Your task to perform on an android device: What is the news today? Image 0: 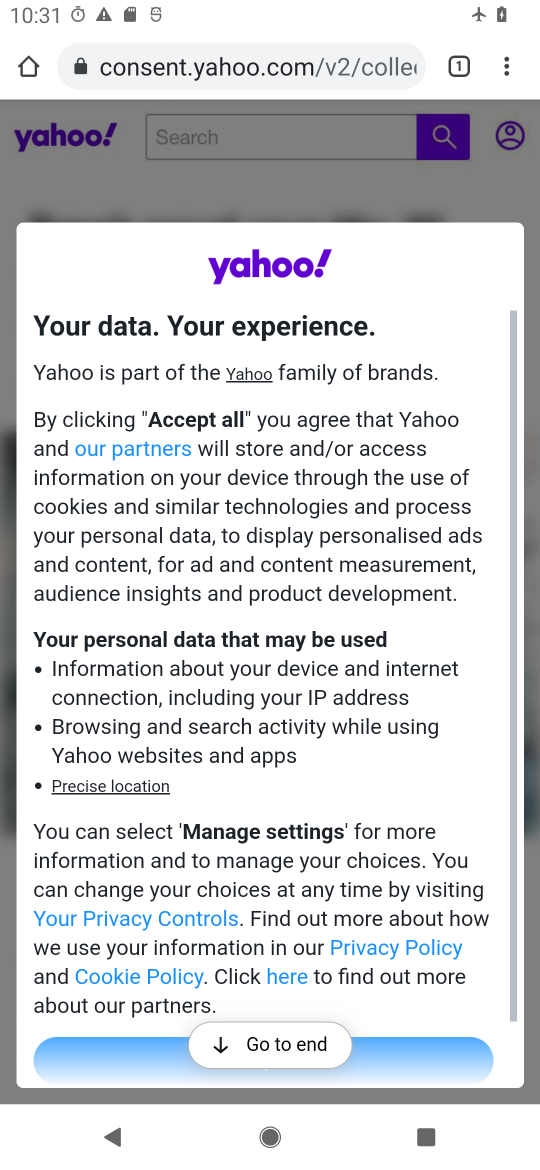
Step 0: press home button
Your task to perform on an android device: What is the news today? Image 1: 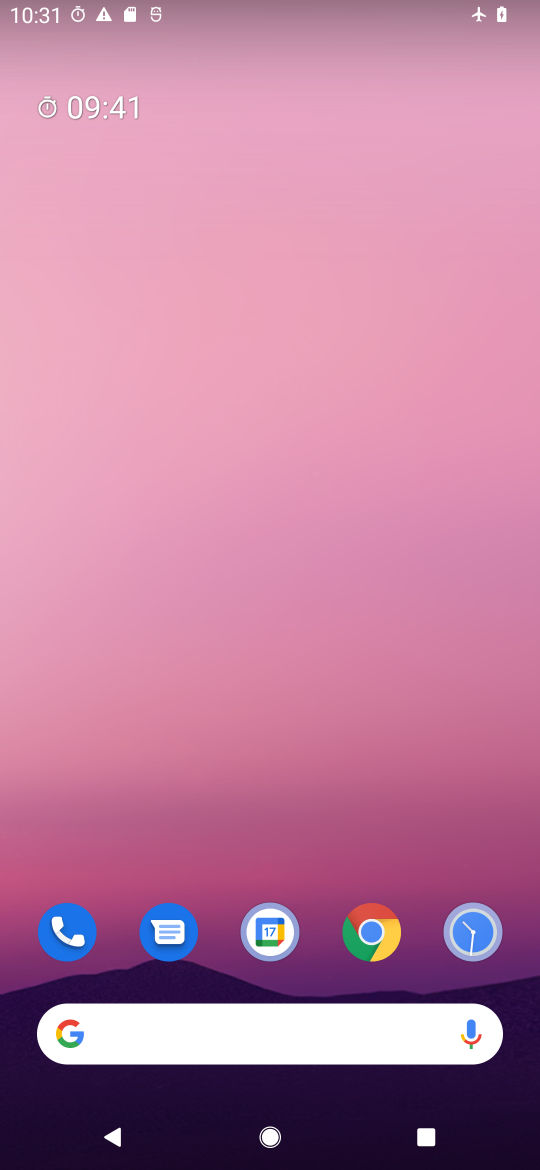
Step 1: drag from (309, 384) to (262, 100)
Your task to perform on an android device: What is the news today? Image 2: 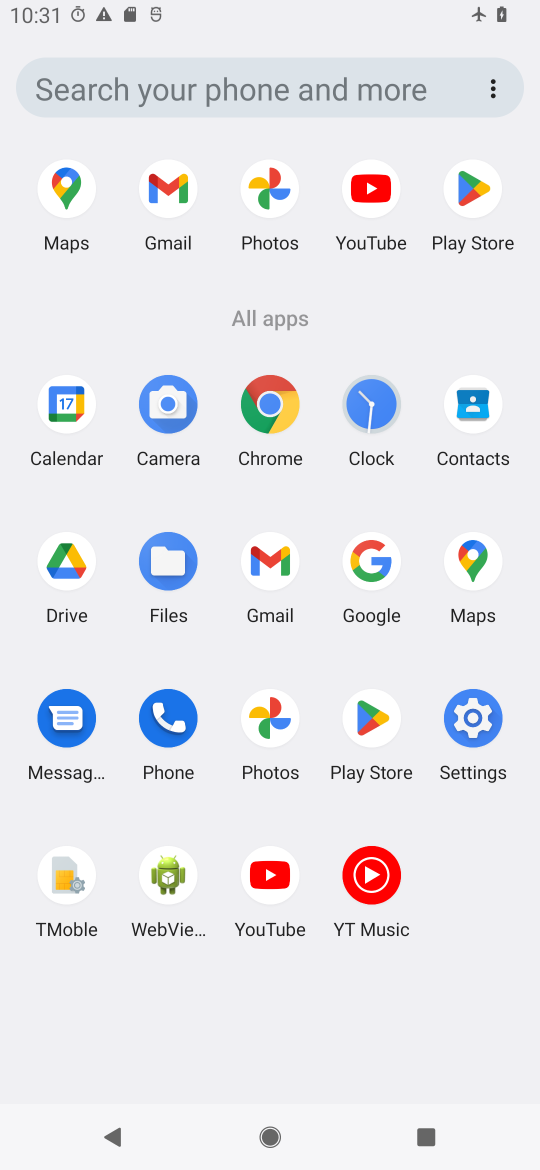
Step 2: click (352, 581)
Your task to perform on an android device: What is the news today? Image 3: 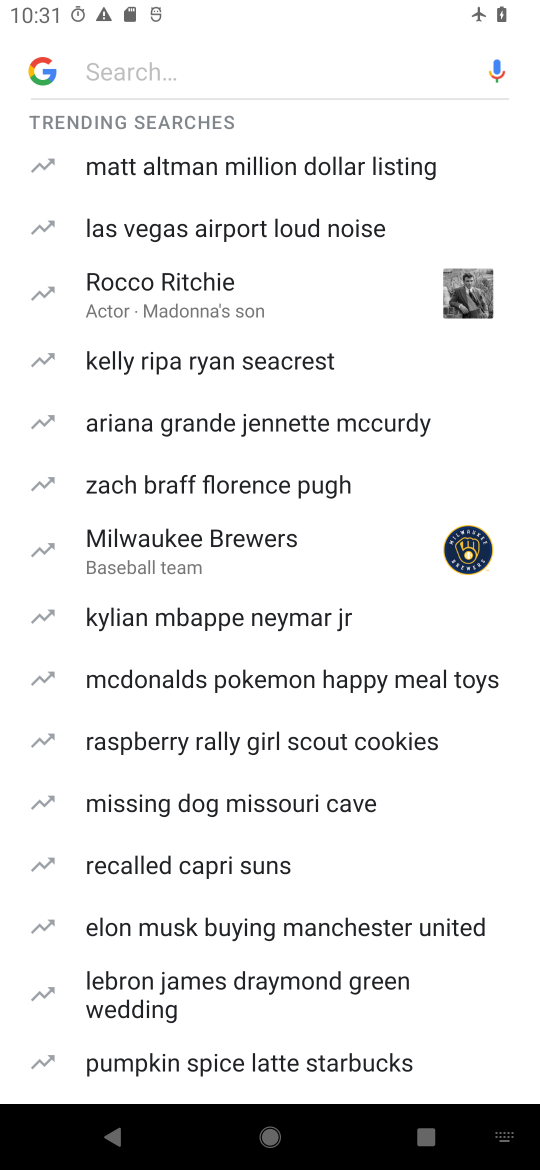
Step 3: type "news toda"
Your task to perform on an android device: What is the news today? Image 4: 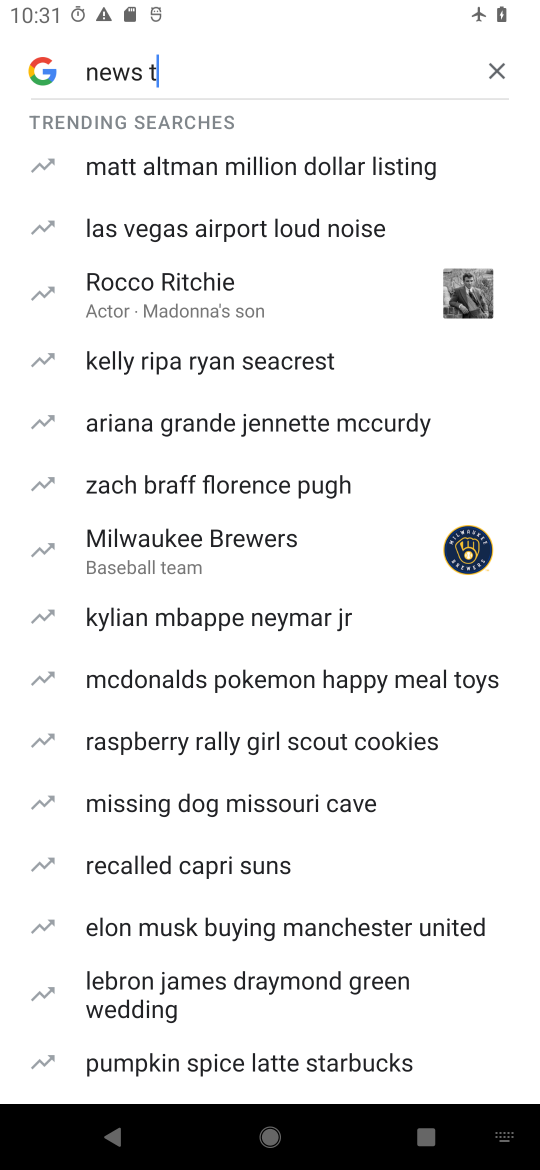
Step 4: type ""
Your task to perform on an android device: What is the news today? Image 5: 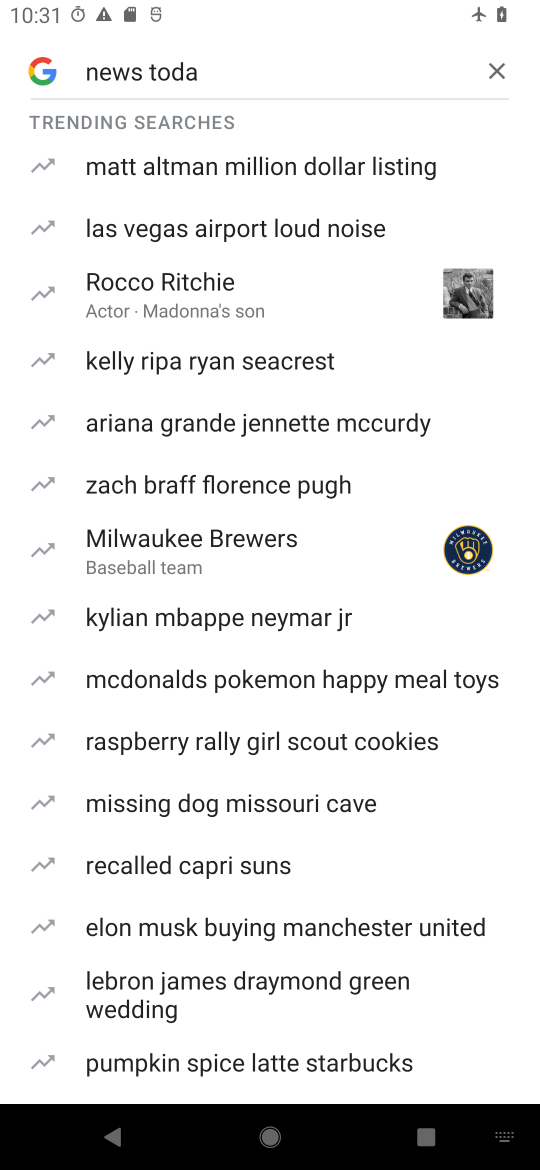
Step 5: click (503, 71)
Your task to perform on an android device: What is the news today? Image 6: 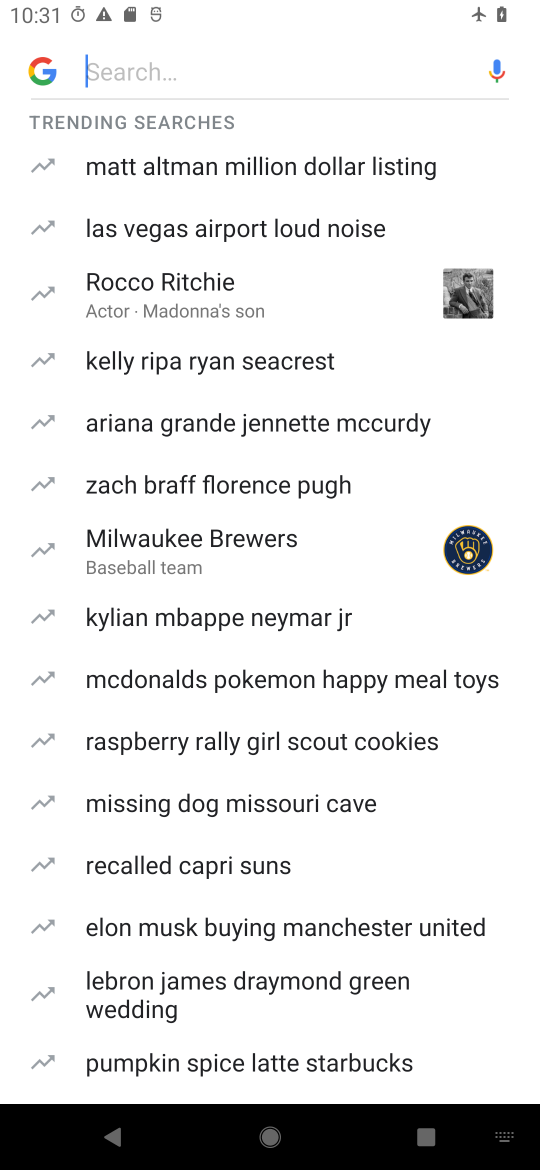
Step 6: type "news today"
Your task to perform on an android device: What is the news today? Image 7: 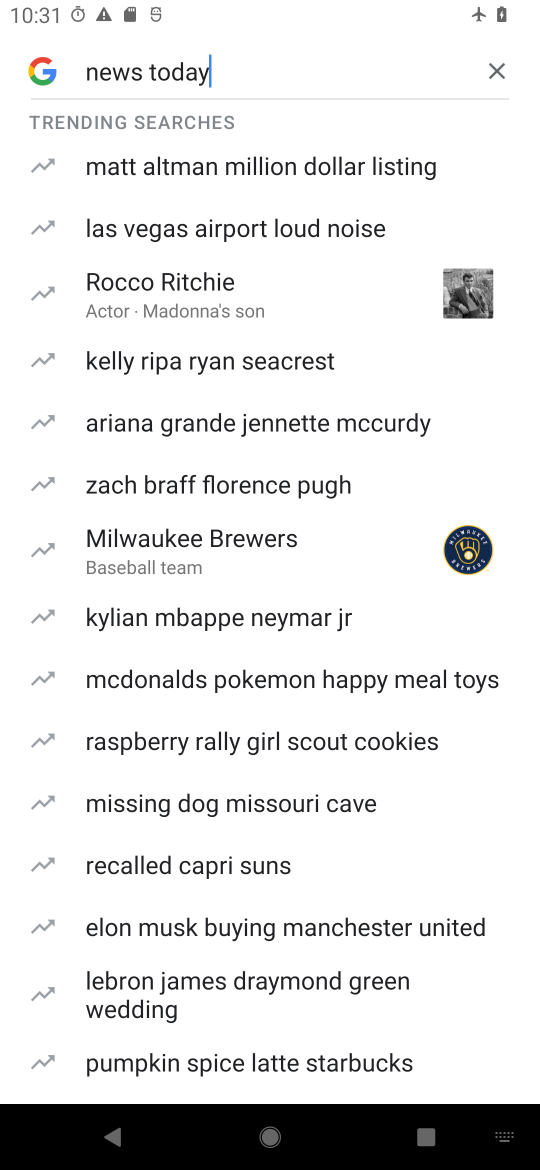
Step 7: type ""
Your task to perform on an android device: What is the news today? Image 8: 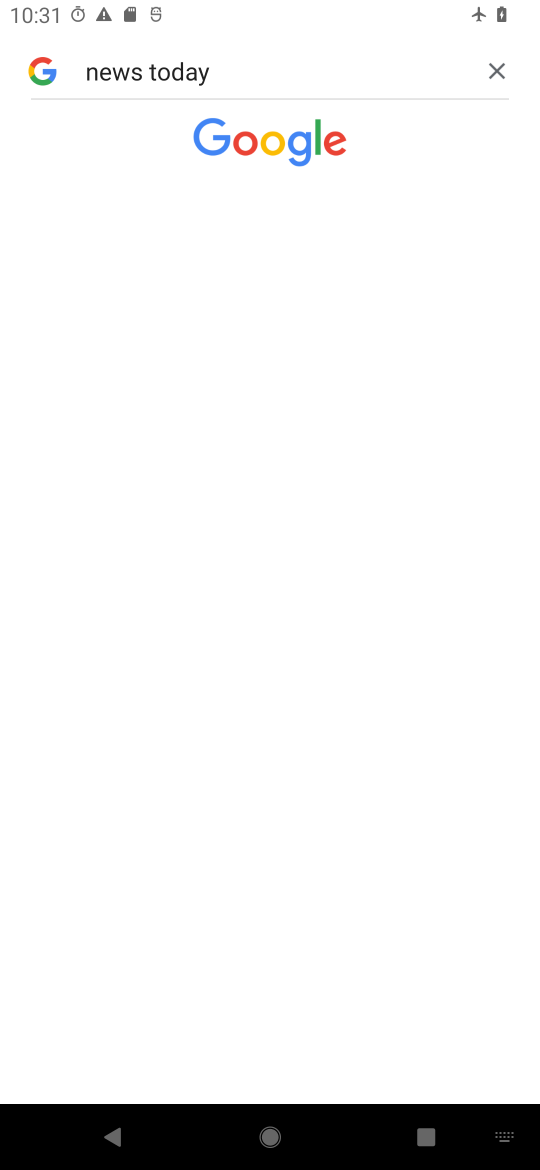
Step 8: task complete